Your task to perform on an android device: Is it going to rain tomorrow? Image 0: 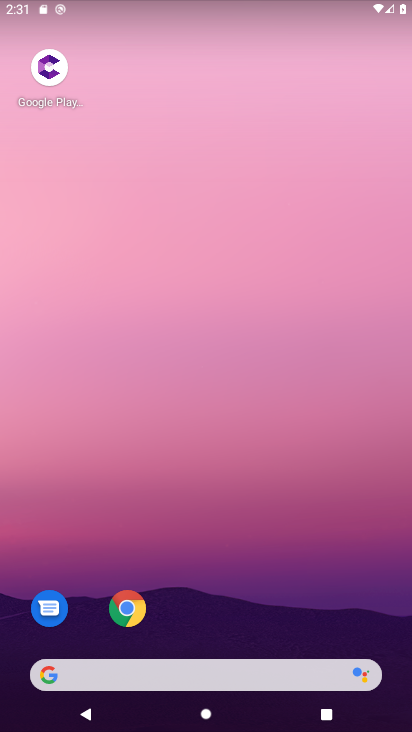
Step 0: drag from (296, 551) to (218, 0)
Your task to perform on an android device: Is it going to rain tomorrow? Image 1: 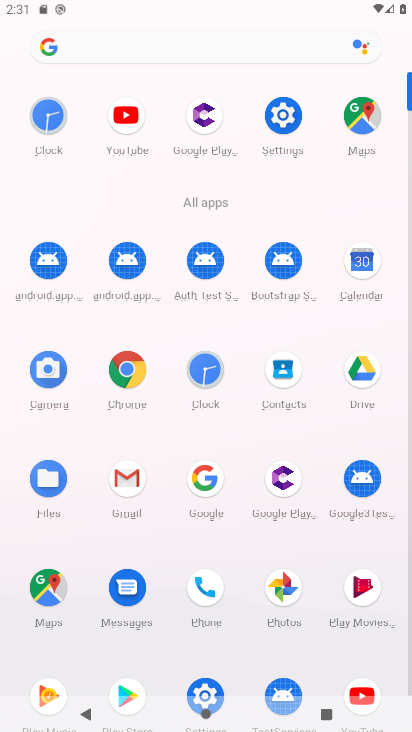
Step 1: click (207, 477)
Your task to perform on an android device: Is it going to rain tomorrow? Image 2: 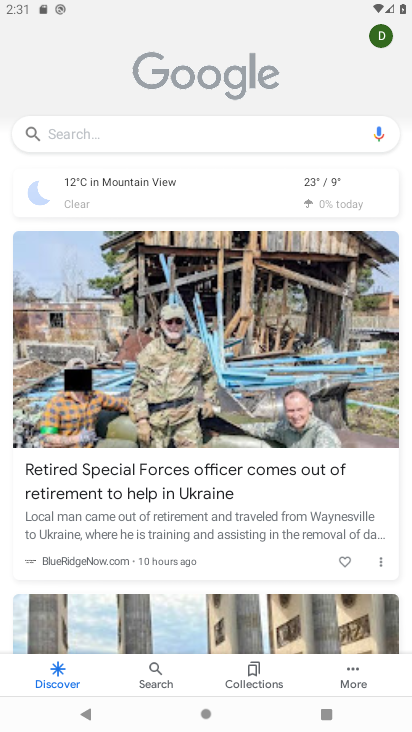
Step 2: click (319, 183)
Your task to perform on an android device: Is it going to rain tomorrow? Image 3: 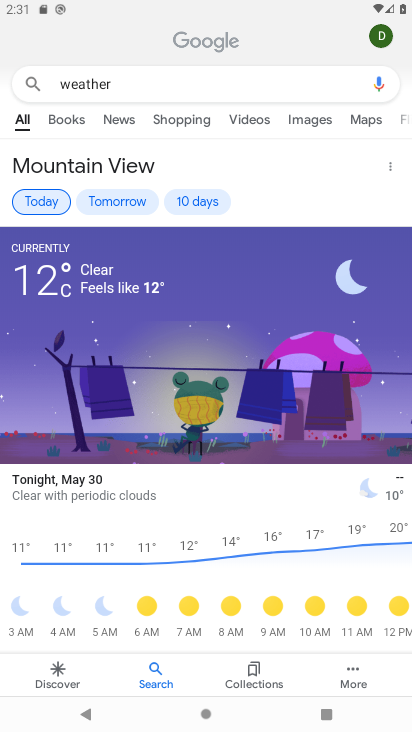
Step 3: click (115, 195)
Your task to perform on an android device: Is it going to rain tomorrow? Image 4: 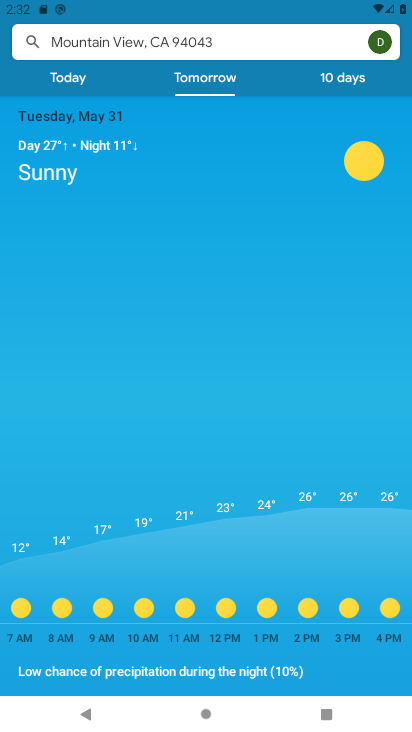
Step 4: task complete